Your task to perform on an android device: Search for Italian restaurants on Maps Image 0: 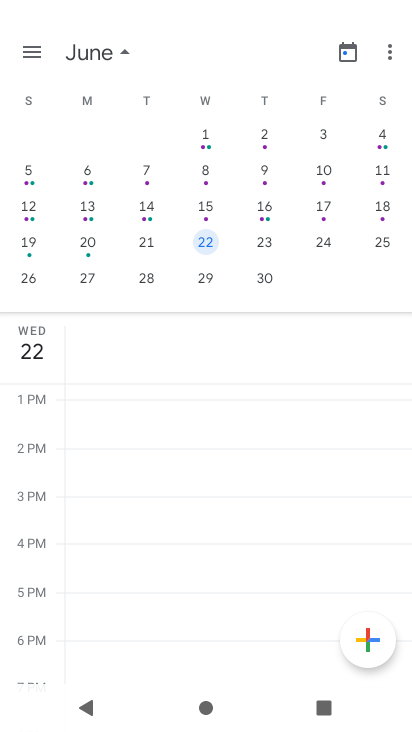
Step 0: press home button
Your task to perform on an android device: Search for Italian restaurants on Maps Image 1: 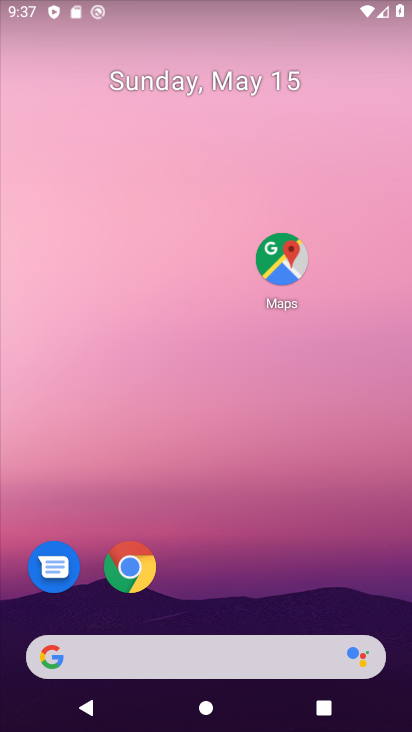
Step 1: click (284, 260)
Your task to perform on an android device: Search for Italian restaurants on Maps Image 2: 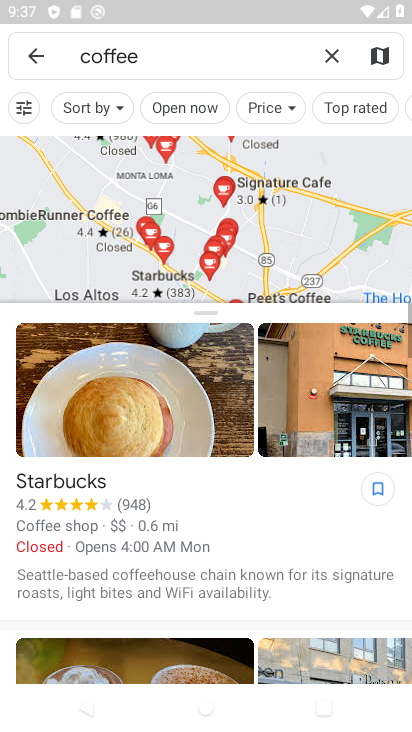
Step 2: click (216, 53)
Your task to perform on an android device: Search for Italian restaurants on Maps Image 3: 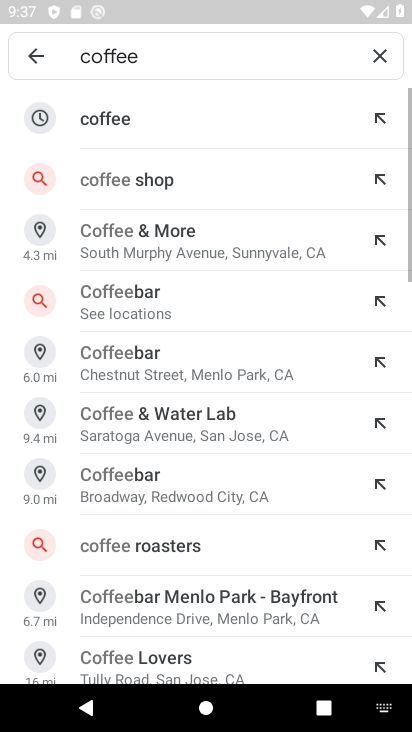
Step 3: click (376, 52)
Your task to perform on an android device: Search for Italian restaurants on Maps Image 4: 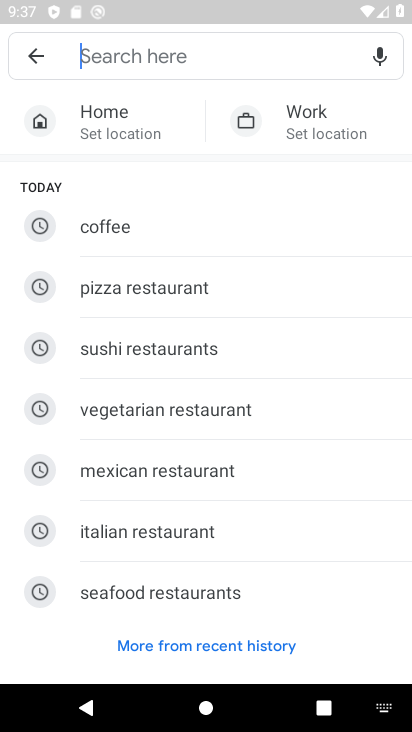
Step 4: click (154, 529)
Your task to perform on an android device: Search for Italian restaurants on Maps Image 5: 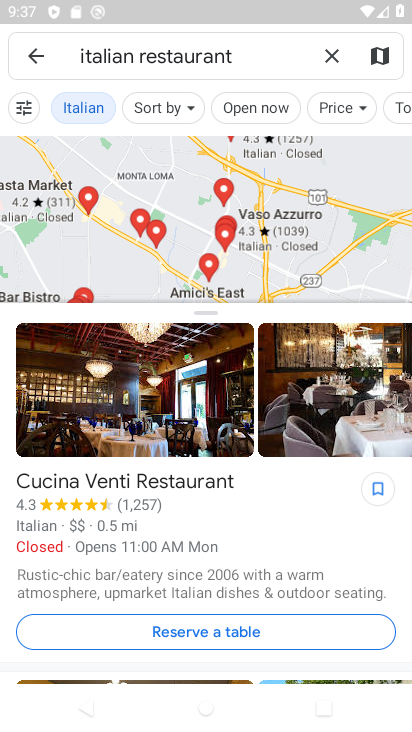
Step 5: task complete